Your task to perform on an android device: turn on javascript in the chrome app Image 0: 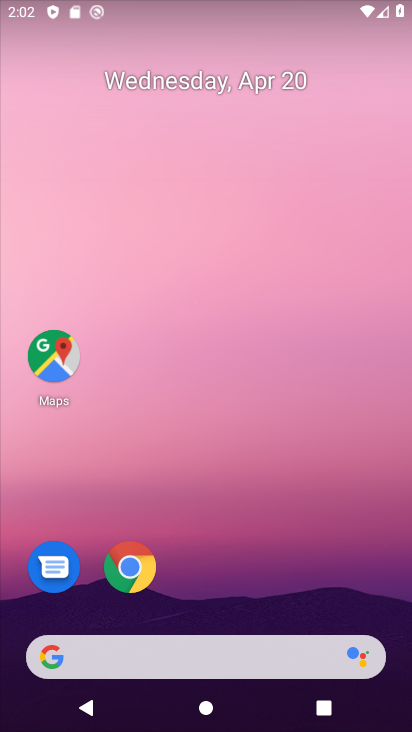
Step 0: drag from (174, 657) to (218, 168)
Your task to perform on an android device: turn on javascript in the chrome app Image 1: 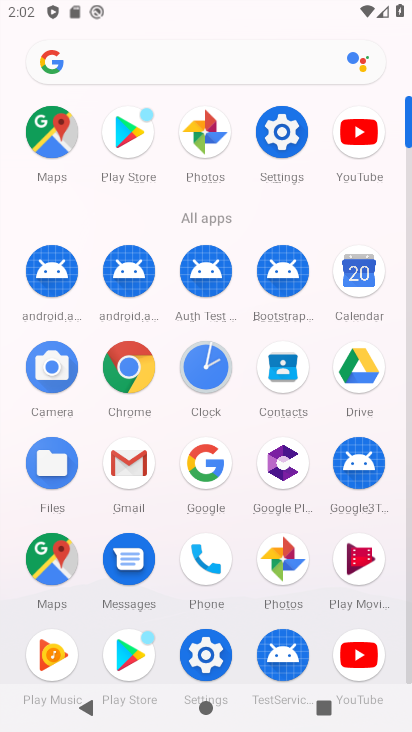
Step 1: click (140, 369)
Your task to perform on an android device: turn on javascript in the chrome app Image 2: 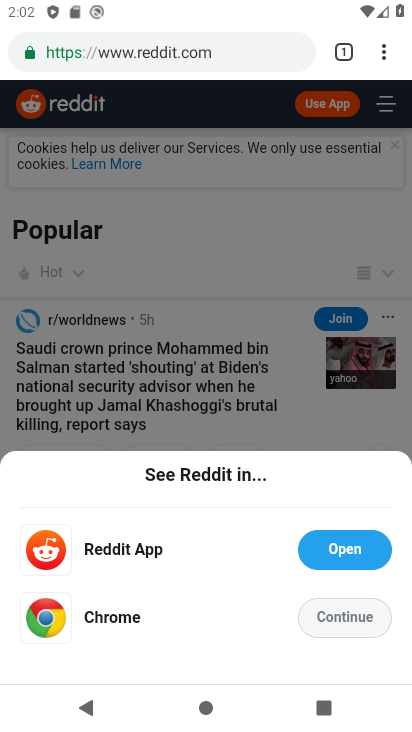
Step 2: click (377, 61)
Your task to perform on an android device: turn on javascript in the chrome app Image 3: 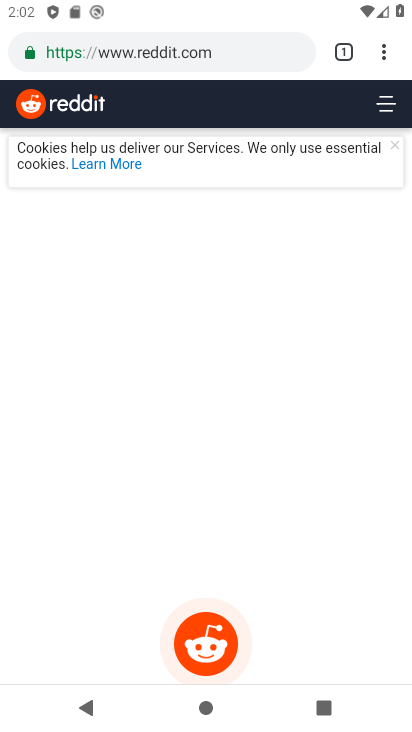
Step 3: click (385, 52)
Your task to perform on an android device: turn on javascript in the chrome app Image 4: 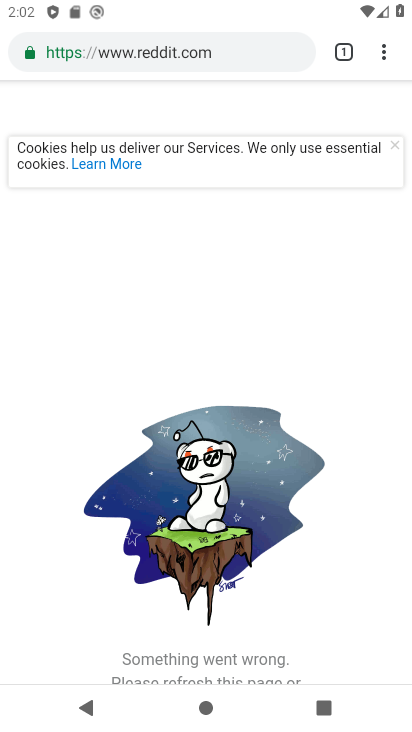
Step 4: drag from (385, 52) to (210, 602)
Your task to perform on an android device: turn on javascript in the chrome app Image 5: 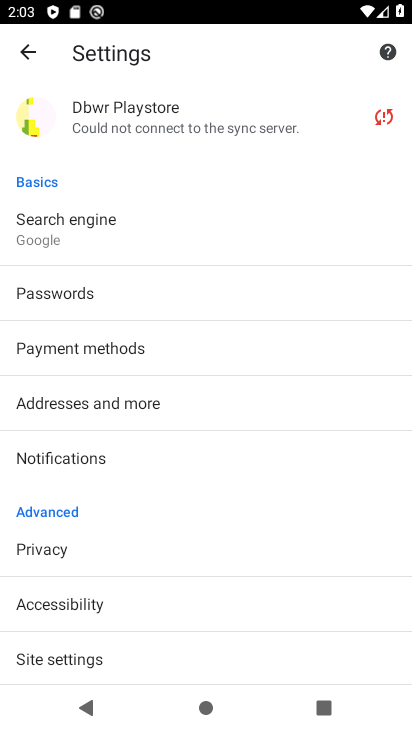
Step 5: click (99, 653)
Your task to perform on an android device: turn on javascript in the chrome app Image 6: 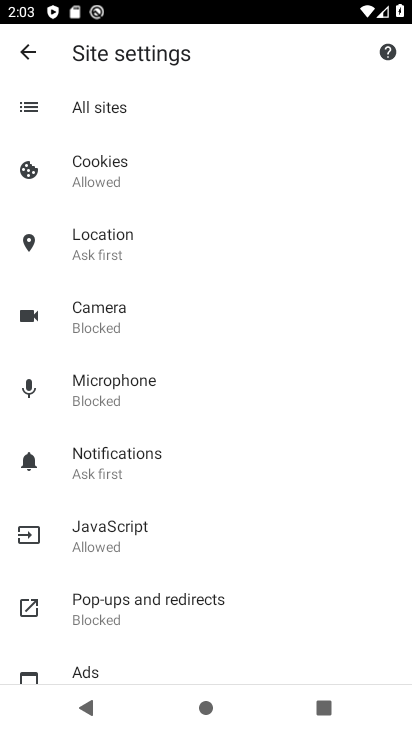
Step 6: click (147, 549)
Your task to perform on an android device: turn on javascript in the chrome app Image 7: 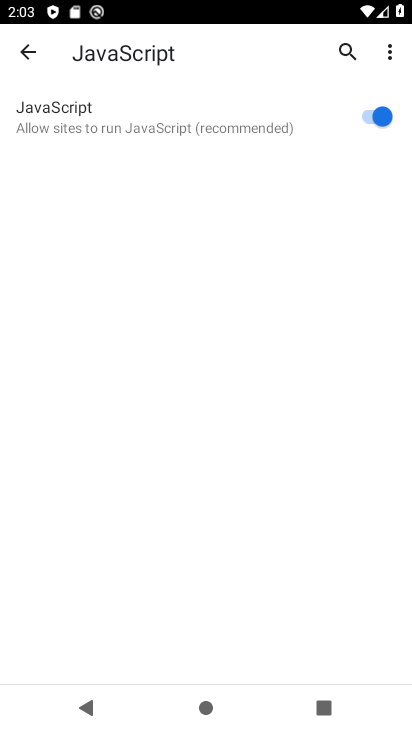
Step 7: task complete